Your task to perform on an android device: Open settings Image 0: 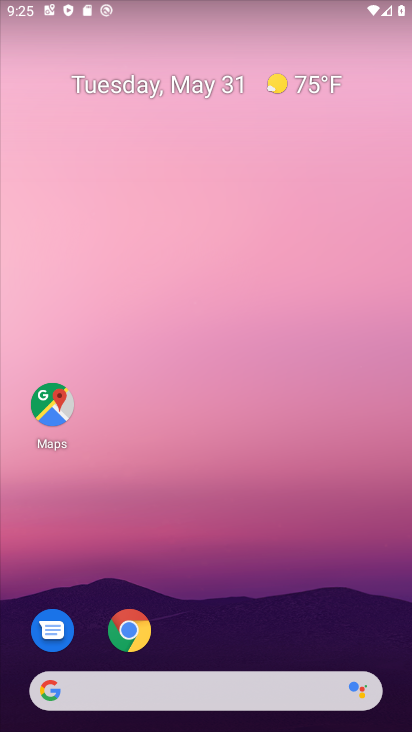
Step 0: drag from (260, 681) to (270, 307)
Your task to perform on an android device: Open settings Image 1: 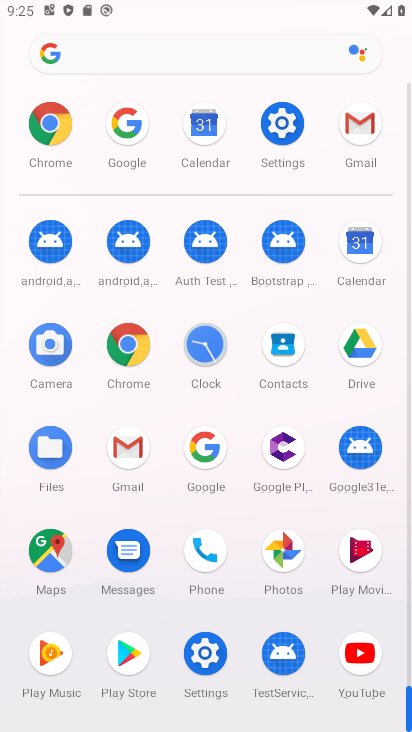
Step 1: press home button
Your task to perform on an android device: Open settings Image 2: 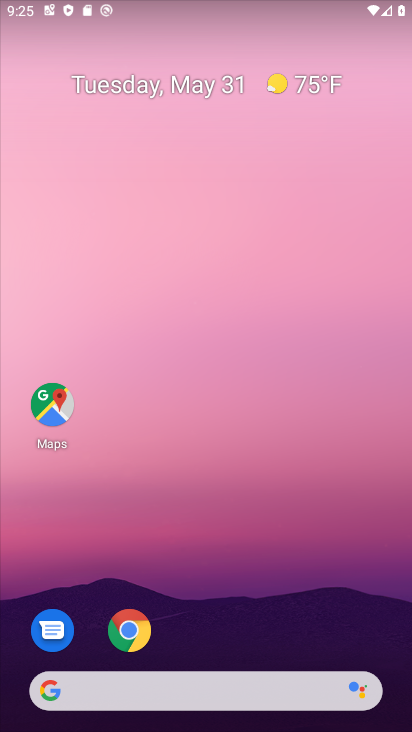
Step 2: drag from (245, 660) to (314, 208)
Your task to perform on an android device: Open settings Image 3: 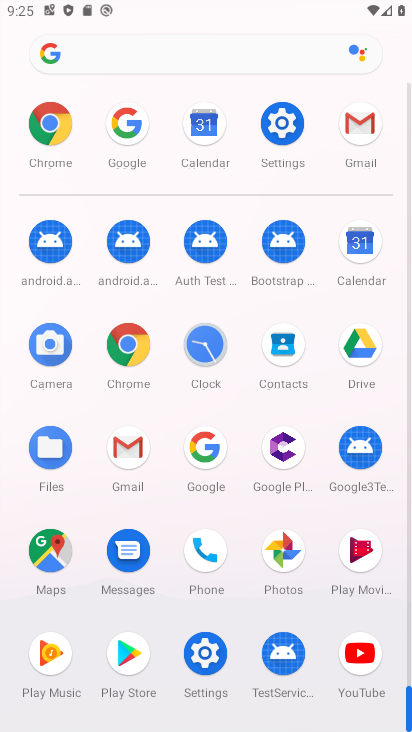
Step 3: click (286, 139)
Your task to perform on an android device: Open settings Image 4: 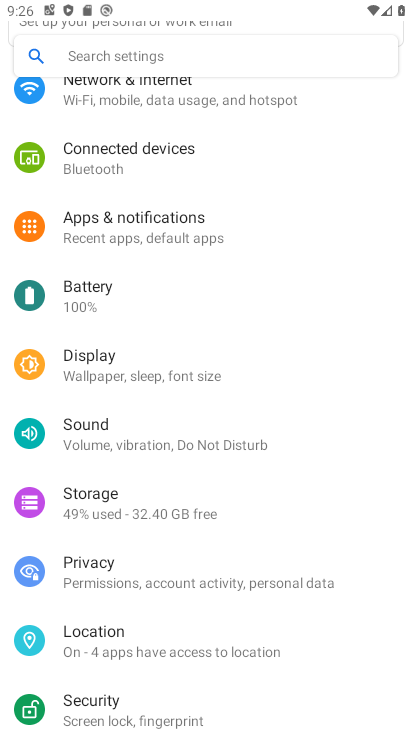
Step 4: task complete